Your task to perform on an android device: install app "Upside-Cash back on gas & food" Image 0: 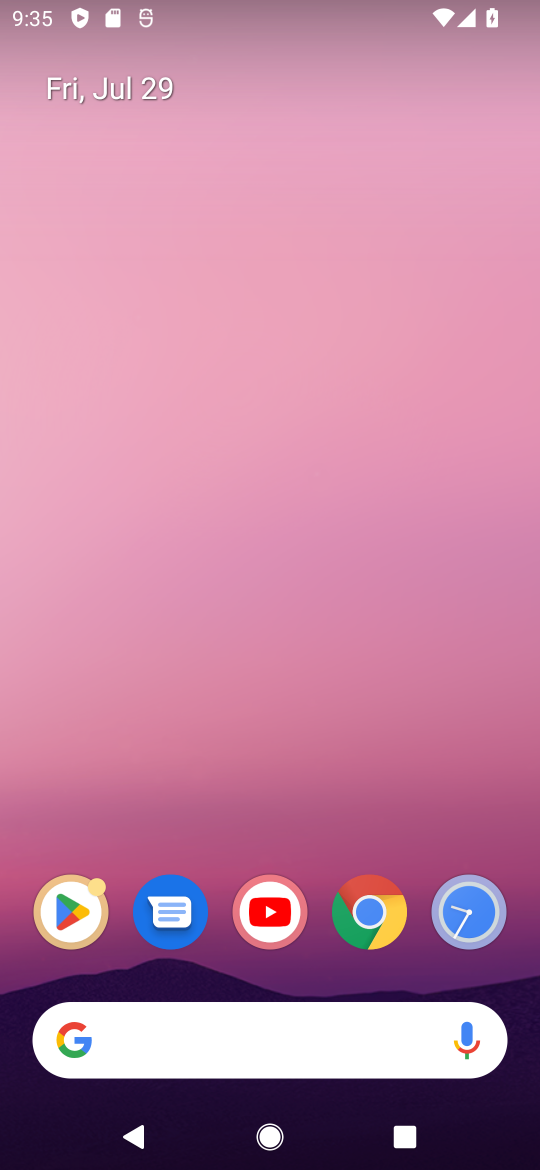
Step 0: click (61, 913)
Your task to perform on an android device: install app "Upside-Cash back on gas & food" Image 1: 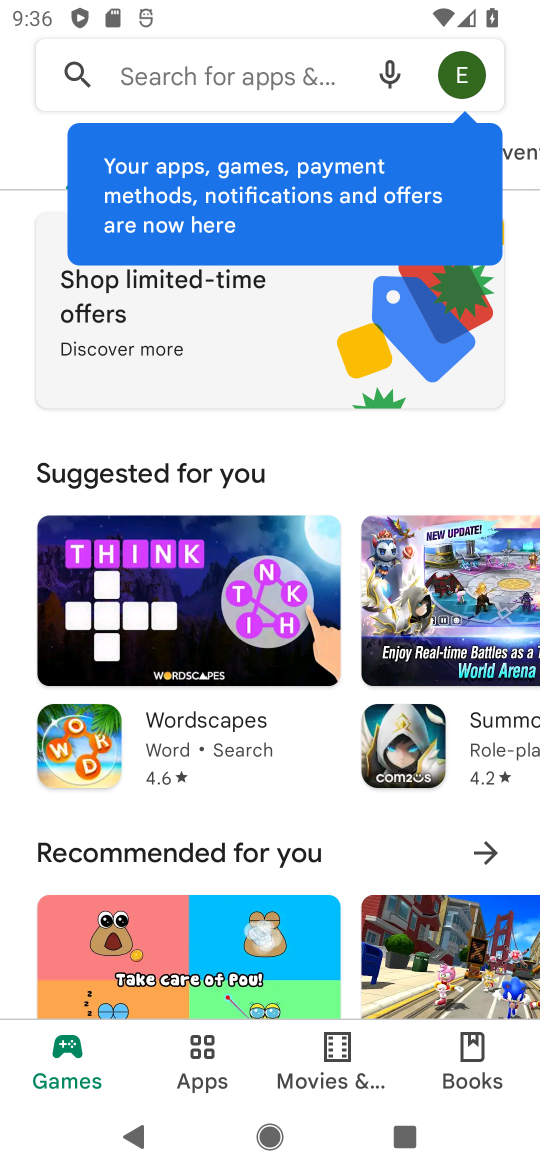
Step 1: click (280, 73)
Your task to perform on an android device: install app "Upside-Cash back on gas & food" Image 2: 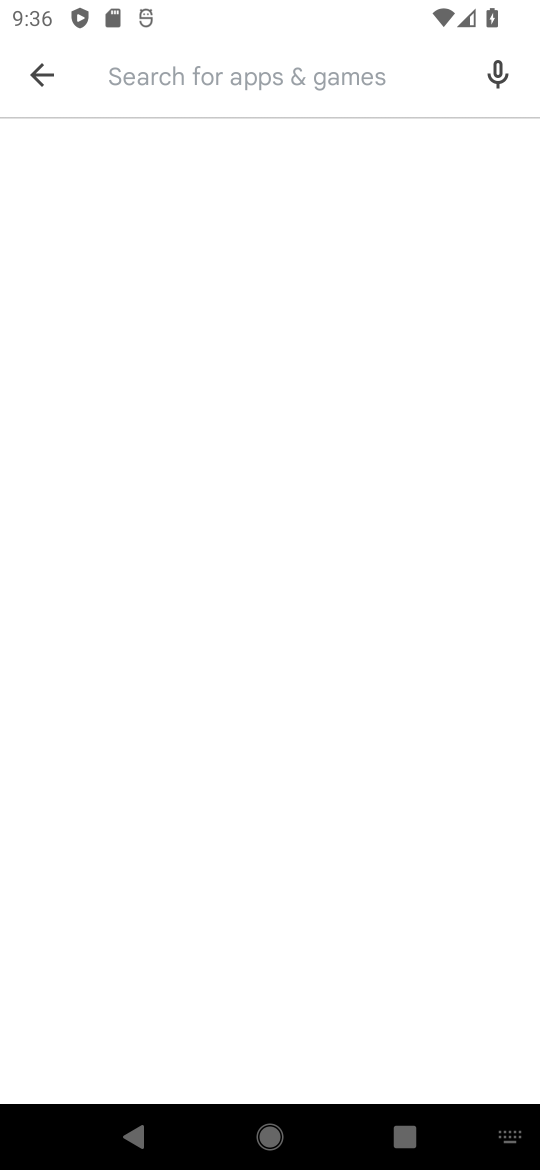
Step 2: type "upside cash"
Your task to perform on an android device: install app "Upside-Cash back on gas & food" Image 3: 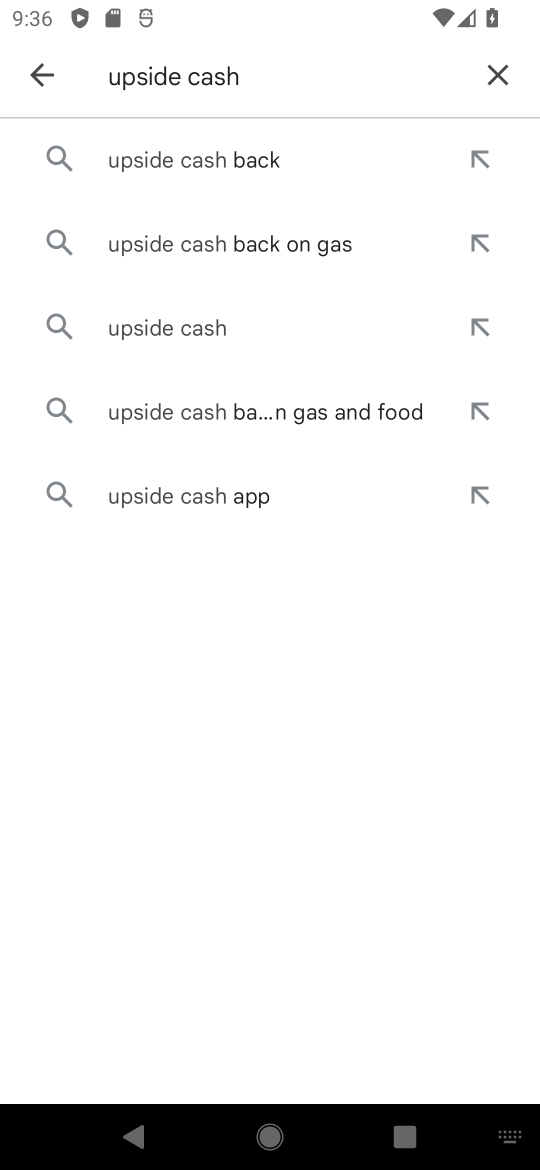
Step 3: click (262, 179)
Your task to perform on an android device: install app "Upside-Cash back on gas & food" Image 4: 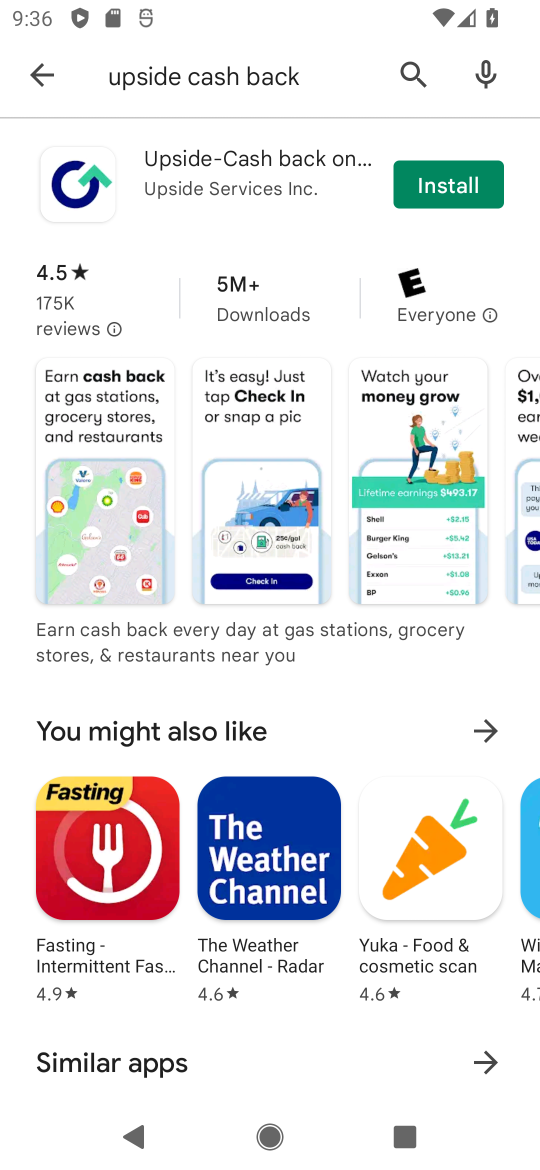
Step 4: click (407, 191)
Your task to perform on an android device: install app "Upside-Cash back on gas & food" Image 5: 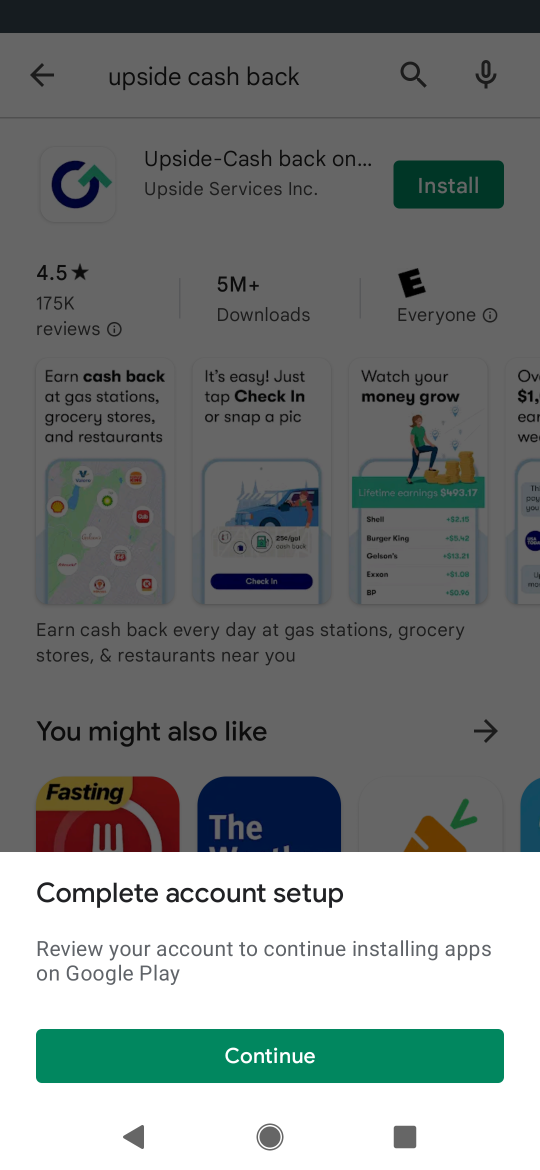
Step 5: click (280, 1071)
Your task to perform on an android device: install app "Upside-Cash back on gas & food" Image 6: 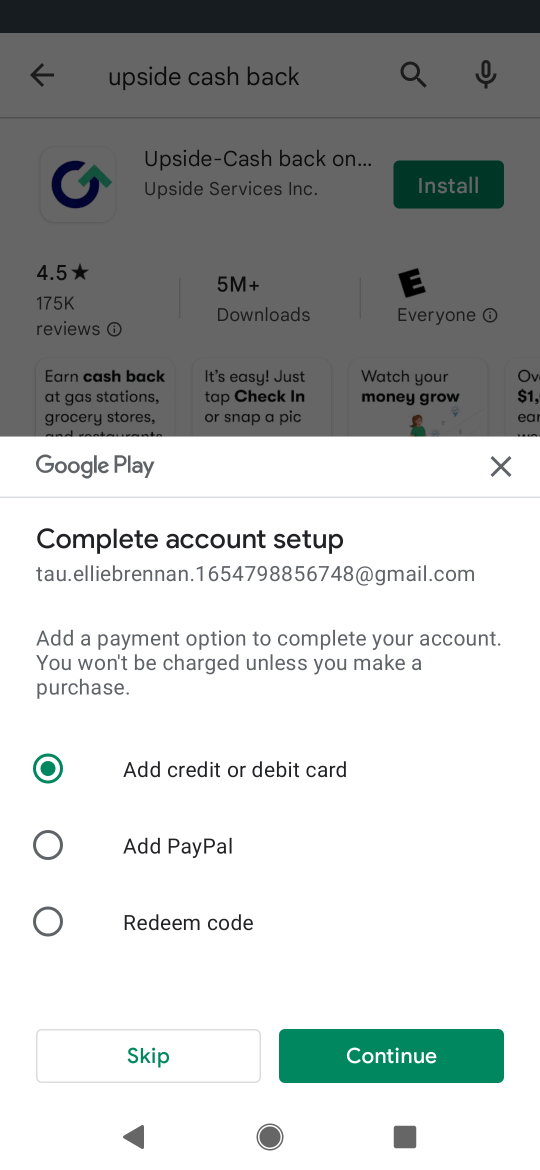
Step 6: click (227, 1043)
Your task to perform on an android device: install app "Upside-Cash back on gas & food" Image 7: 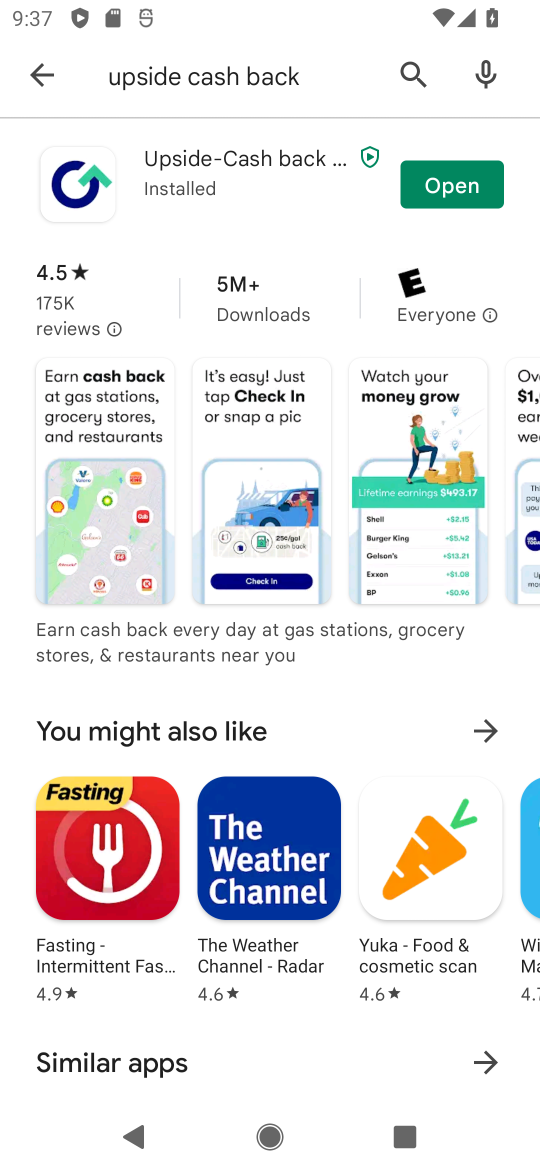
Step 7: task complete